Your task to perform on an android device: find photos in the google photos app Image 0: 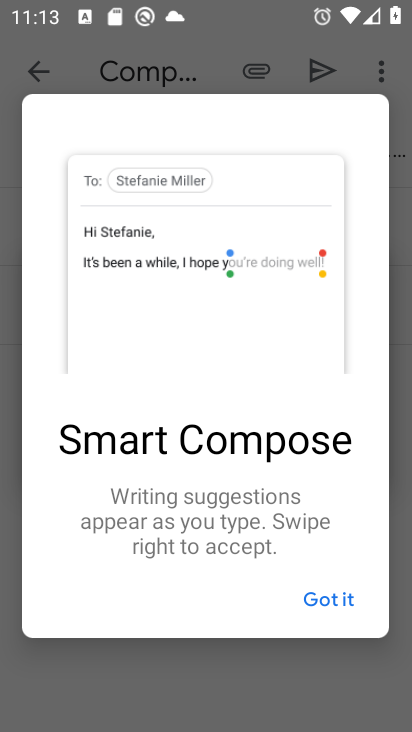
Step 0: press home button
Your task to perform on an android device: find photos in the google photos app Image 1: 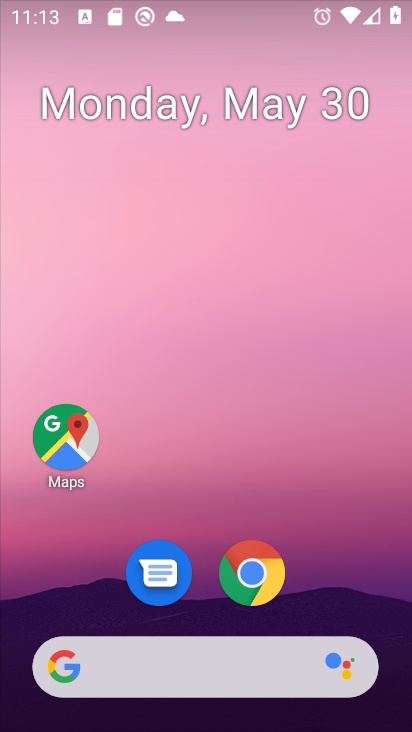
Step 1: drag from (180, 577) to (178, 168)
Your task to perform on an android device: find photos in the google photos app Image 2: 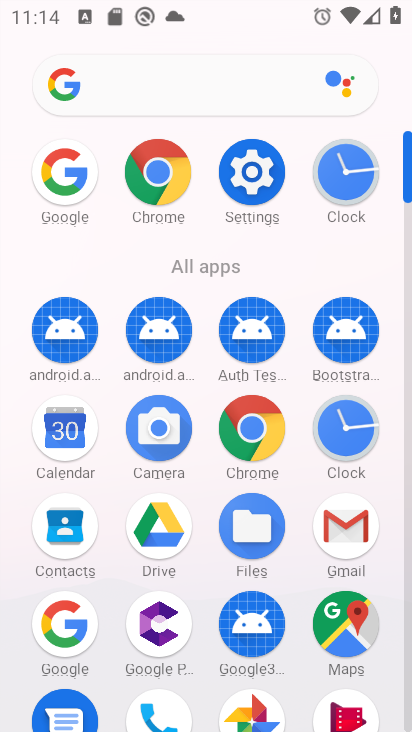
Step 2: click (249, 707)
Your task to perform on an android device: find photos in the google photos app Image 3: 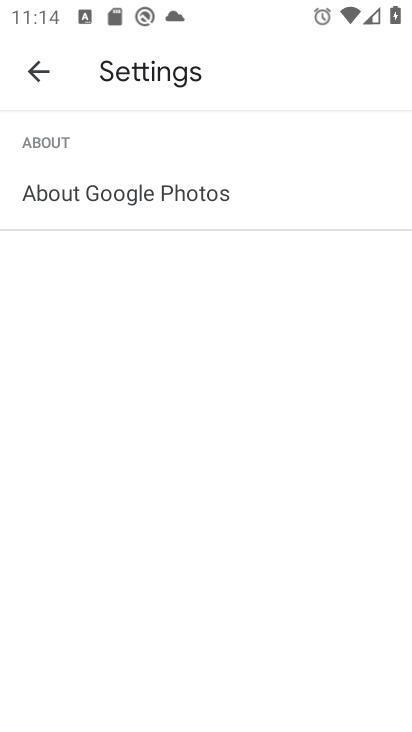
Step 3: click (41, 87)
Your task to perform on an android device: find photos in the google photos app Image 4: 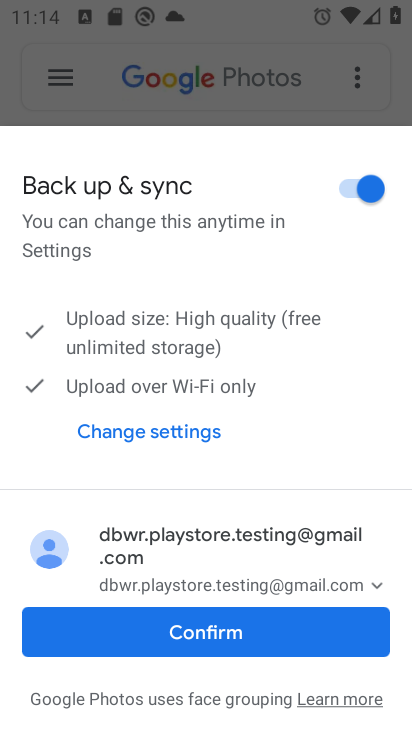
Step 4: click (211, 642)
Your task to perform on an android device: find photos in the google photos app Image 5: 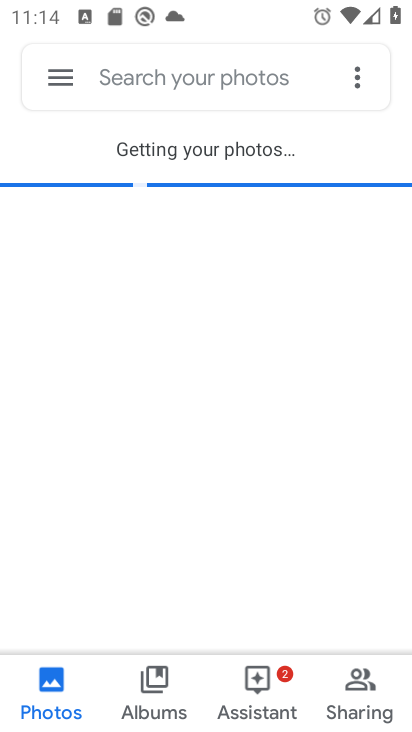
Step 5: task complete